Your task to perform on an android device: turn off location history Image 0: 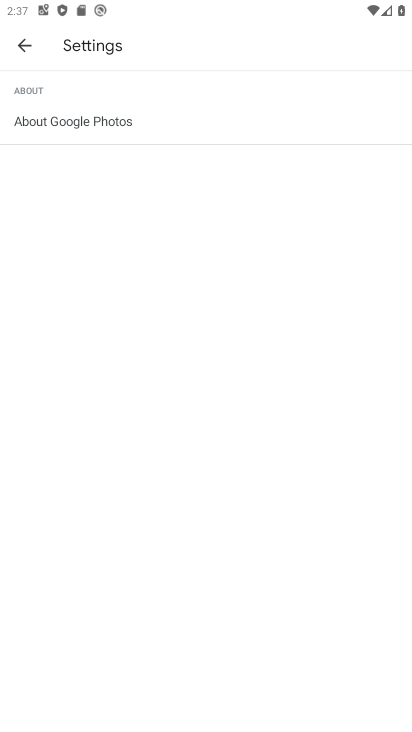
Step 0: press home button
Your task to perform on an android device: turn off location history Image 1: 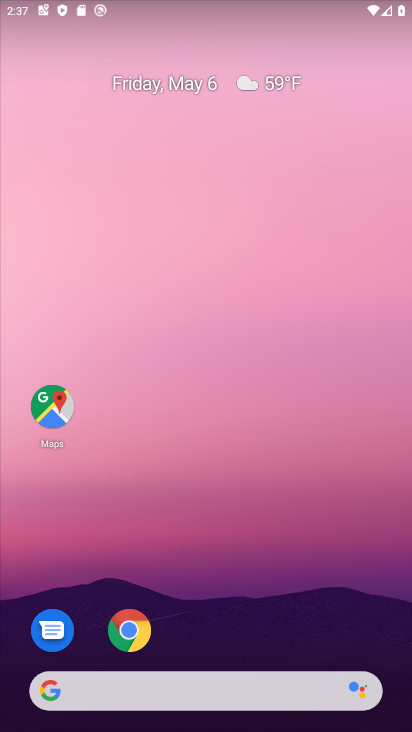
Step 1: drag from (212, 640) to (212, 49)
Your task to perform on an android device: turn off location history Image 2: 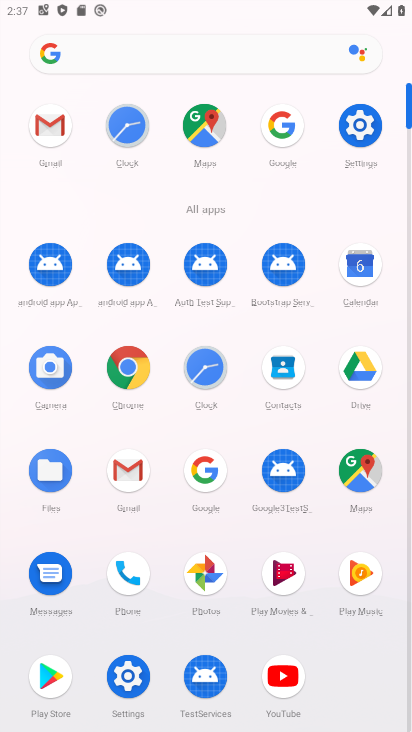
Step 2: click (350, 120)
Your task to perform on an android device: turn off location history Image 3: 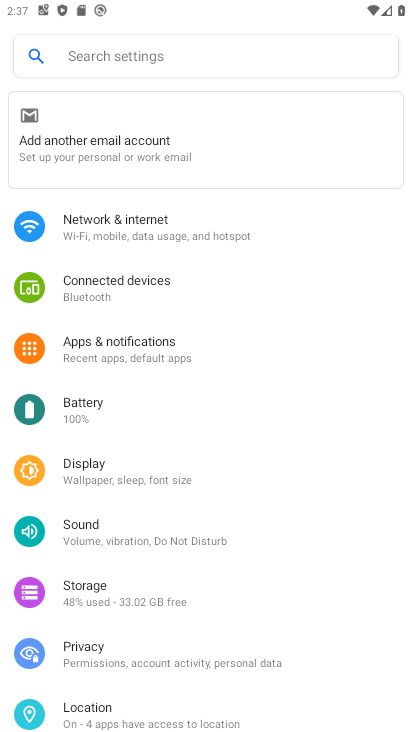
Step 3: click (136, 705)
Your task to perform on an android device: turn off location history Image 4: 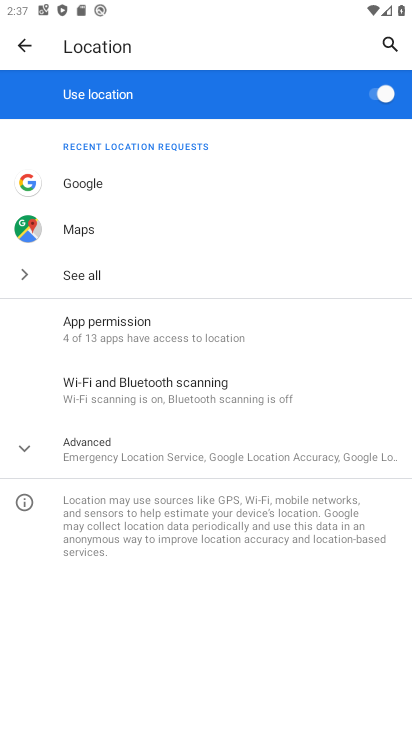
Step 4: click (150, 445)
Your task to perform on an android device: turn off location history Image 5: 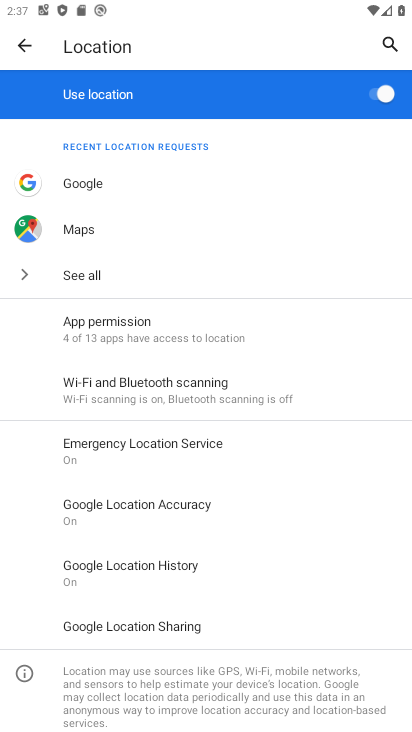
Step 5: click (168, 570)
Your task to perform on an android device: turn off location history Image 6: 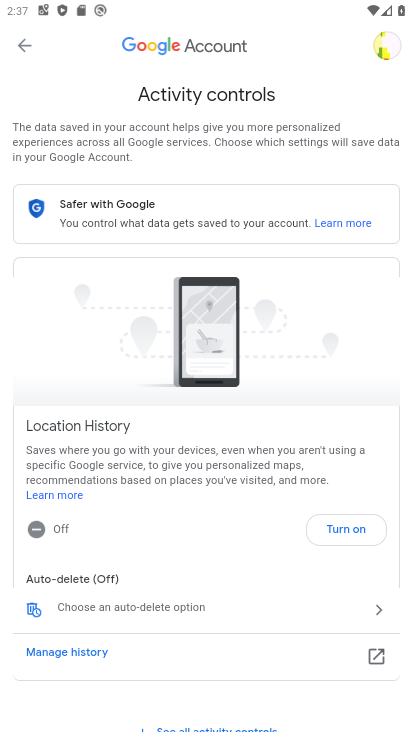
Step 6: task complete